Your task to perform on an android device: turn off location history Image 0: 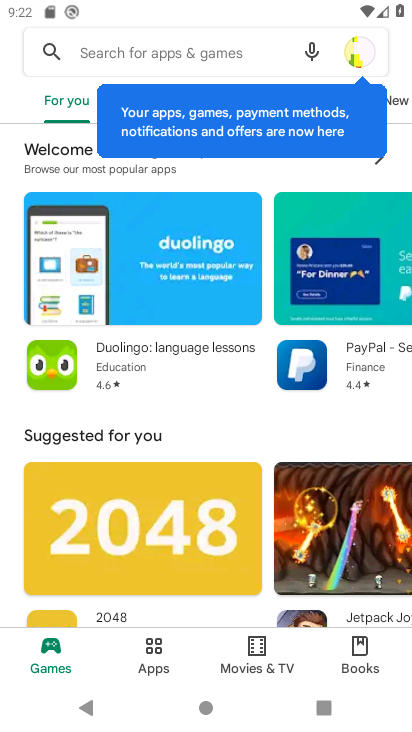
Step 0: press home button
Your task to perform on an android device: turn off location history Image 1: 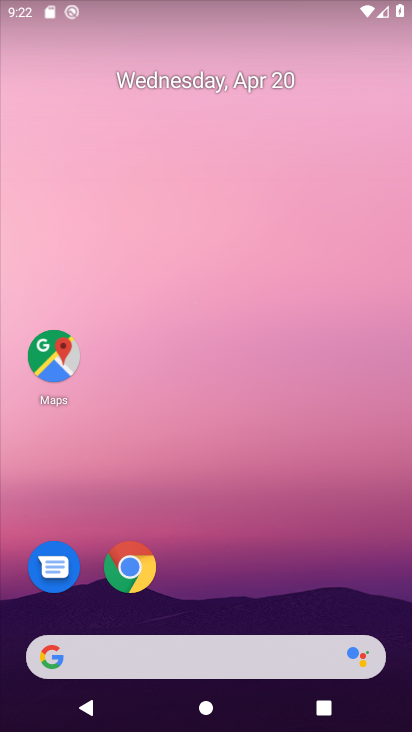
Step 1: drag from (236, 531) to (319, 134)
Your task to perform on an android device: turn off location history Image 2: 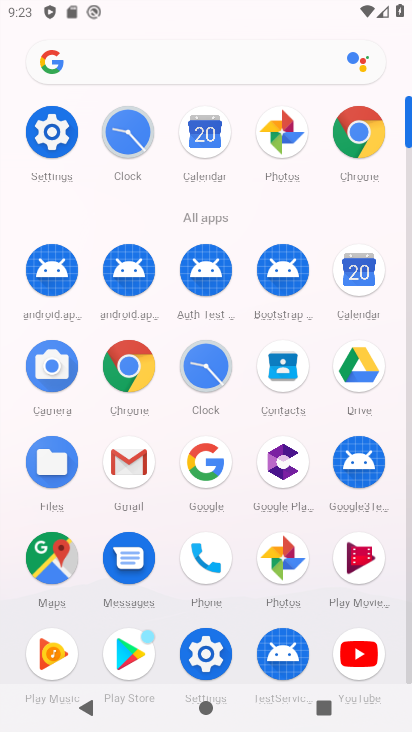
Step 2: click (201, 651)
Your task to perform on an android device: turn off location history Image 3: 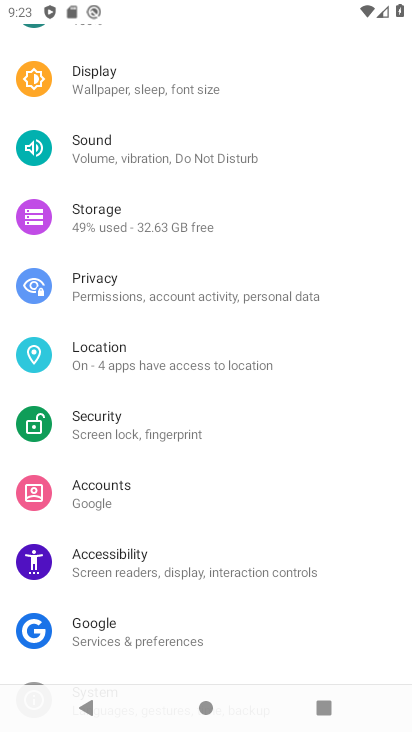
Step 3: click (163, 351)
Your task to perform on an android device: turn off location history Image 4: 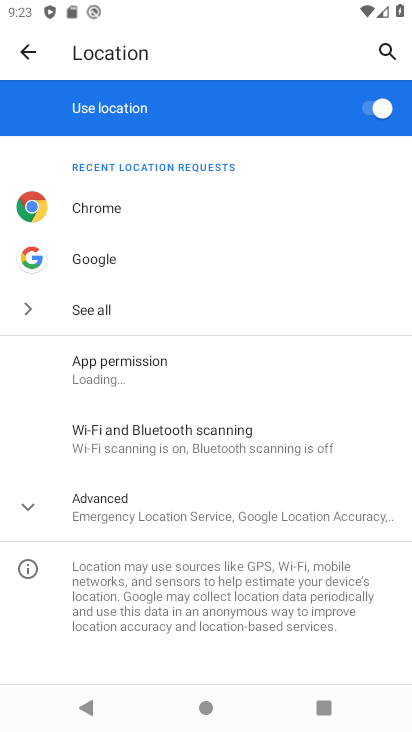
Step 4: click (152, 519)
Your task to perform on an android device: turn off location history Image 5: 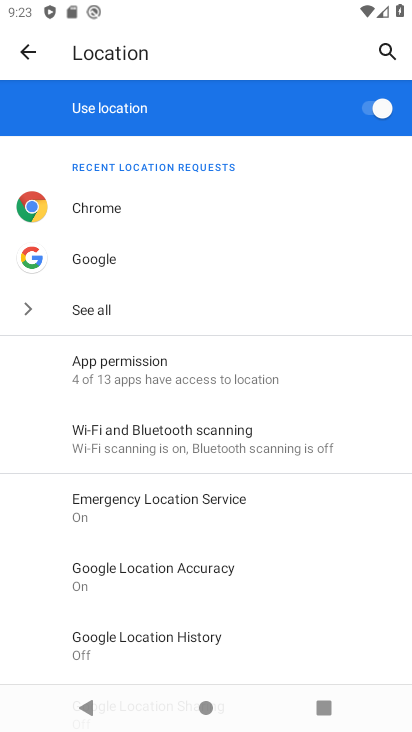
Step 5: drag from (157, 539) to (200, 357)
Your task to perform on an android device: turn off location history Image 6: 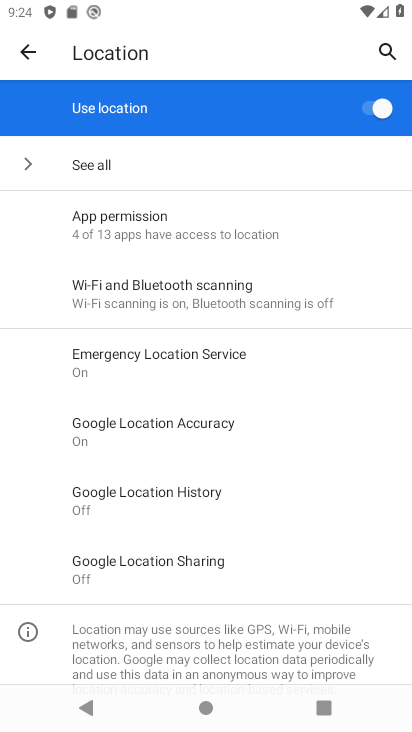
Step 6: click (153, 503)
Your task to perform on an android device: turn off location history Image 7: 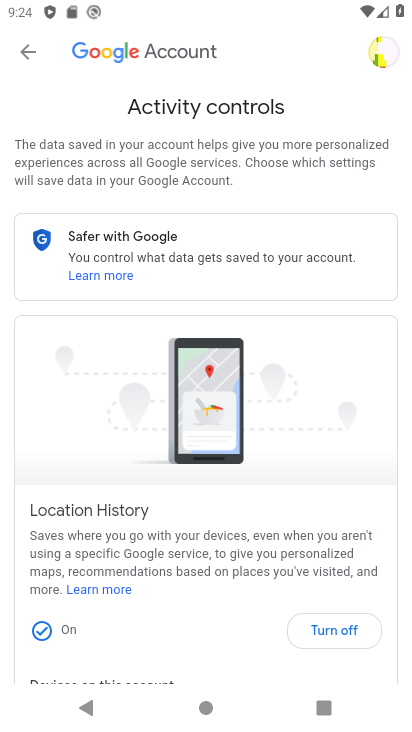
Step 7: task complete